Your task to perform on an android device: turn on data saver in the chrome app Image 0: 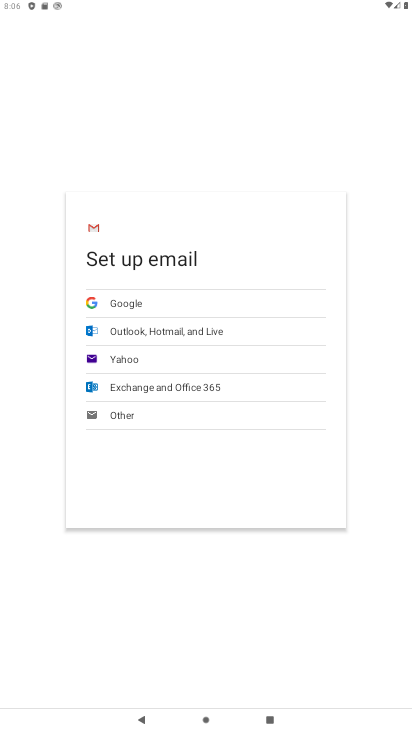
Step 0: press home button
Your task to perform on an android device: turn on data saver in the chrome app Image 1: 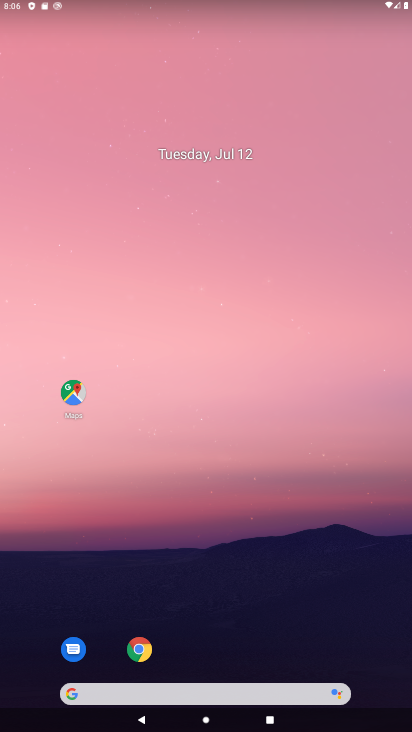
Step 1: click (140, 646)
Your task to perform on an android device: turn on data saver in the chrome app Image 2: 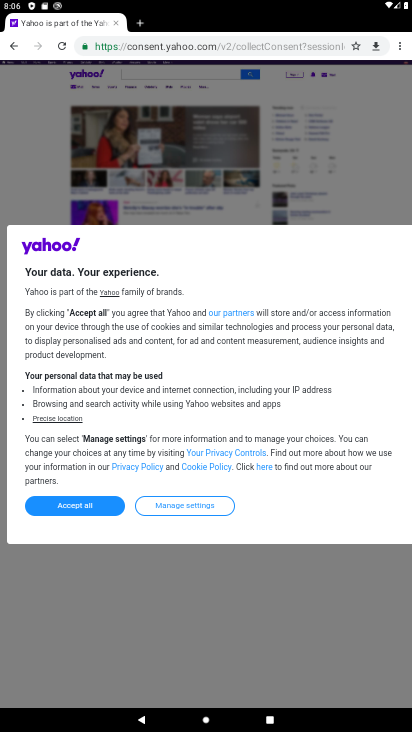
Step 2: click (395, 50)
Your task to perform on an android device: turn on data saver in the chrome app Image 3: 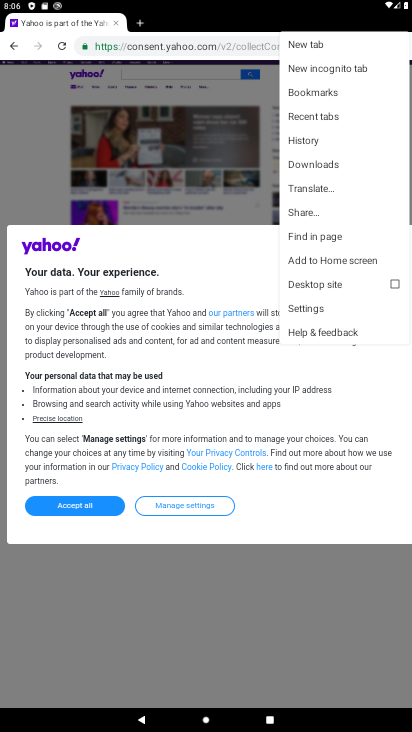
Step 3: click (315, 306)
Your task to perform on an android device: turn on data saver in the chrome app Image 4: 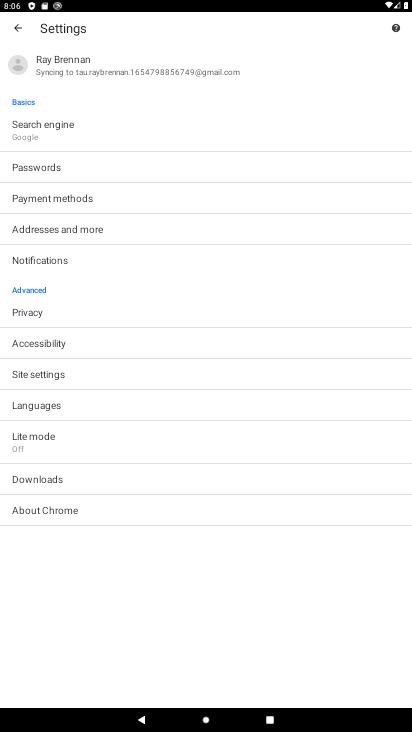
Step 4: click (34, 442)
Your task to perform on an android device: turn on data saver in the chrome app Image 5: 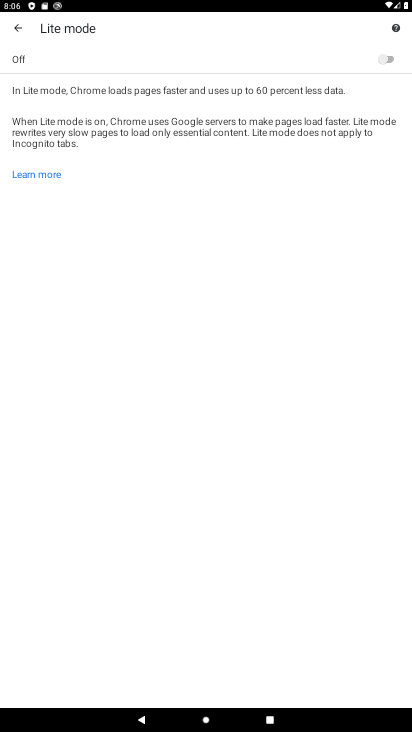
Step 5: click (388, 53)
Your task to perform on an android device: turn on data saver in the chrome app Image 6: 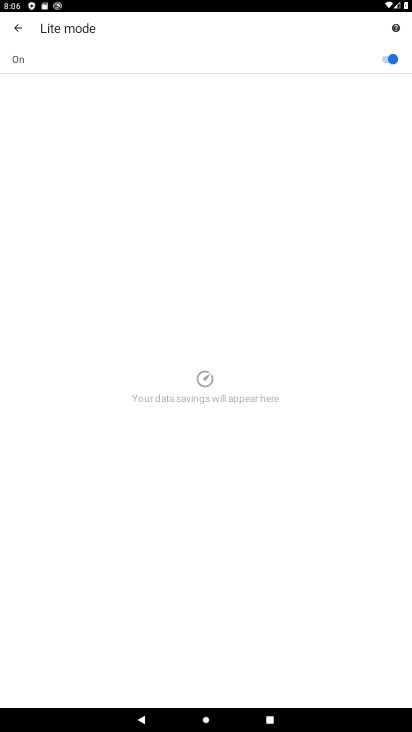
Step 6: task complete